Your task to perform on an android device: change the clock display to show seconds Image 0: 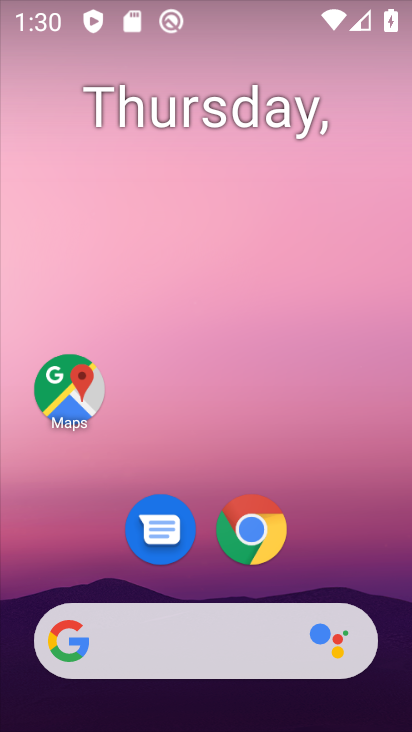
Step 0: drag from (207, 717) to (207, 68)
Your task to perform on an android device: change the clock display to show seconds Image 1: 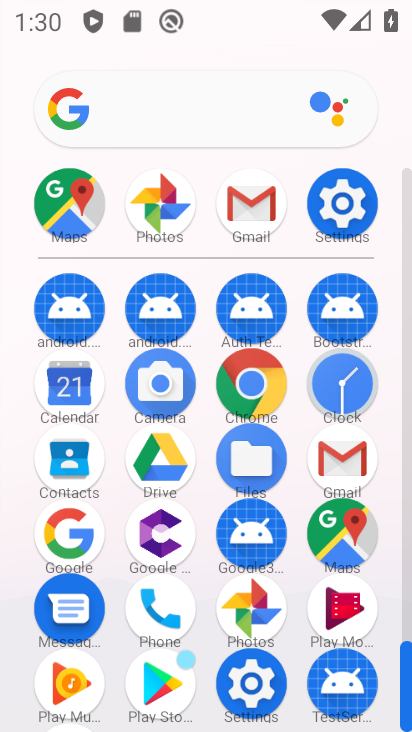
Step 1: click (344, 380)
Your task to perform on an android device: change the clock display to show seconds Image 2: 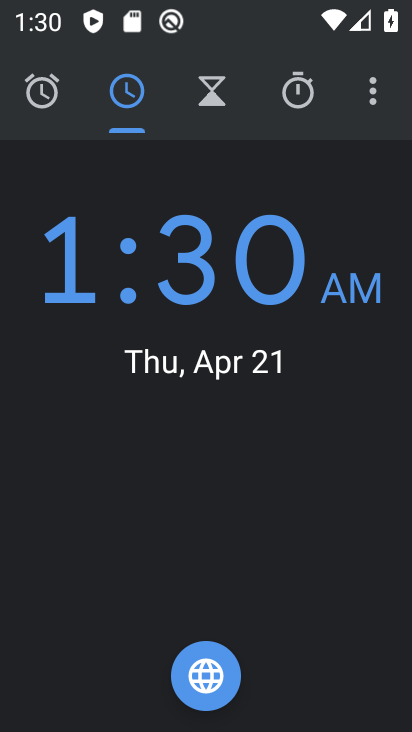
Step 2: click (371, 84)
Your task to perform on an android device: change the clock display to show seconds Image 3: 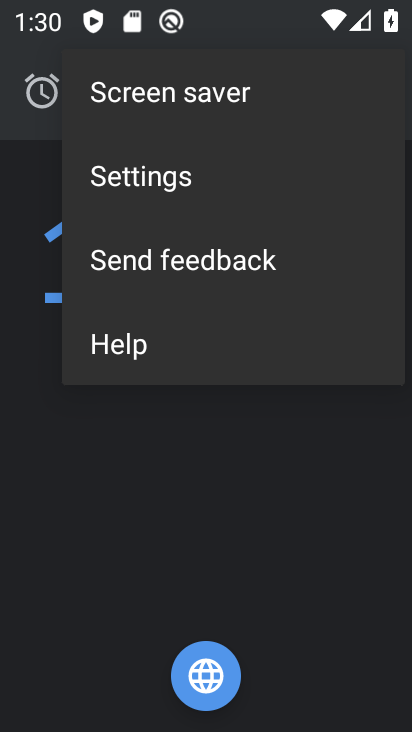
Step 3: click (129, 178)
Your task to perform on an android device: change the clock display to show seconds Image 4: 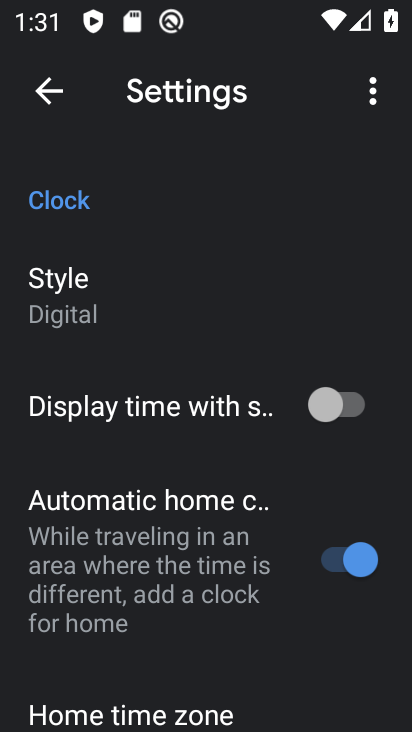
Step 4: click (359, 408)
Your task to perform on an android device: change the clock display to show seconds Image 5: 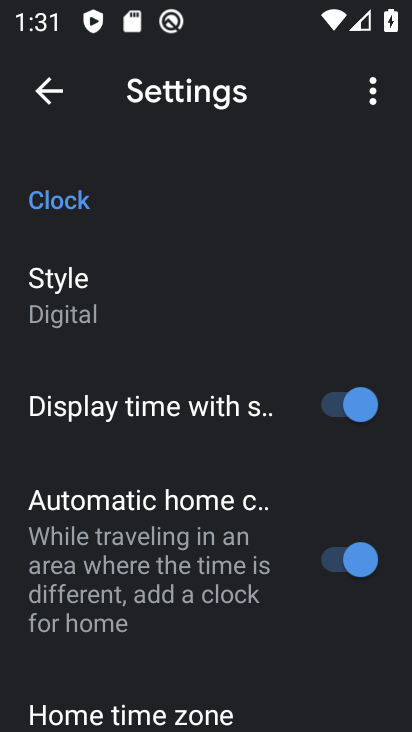
Step 5: task complete